Your task to perform on an android device: Open calendar and show me the third week of next month Image 0: 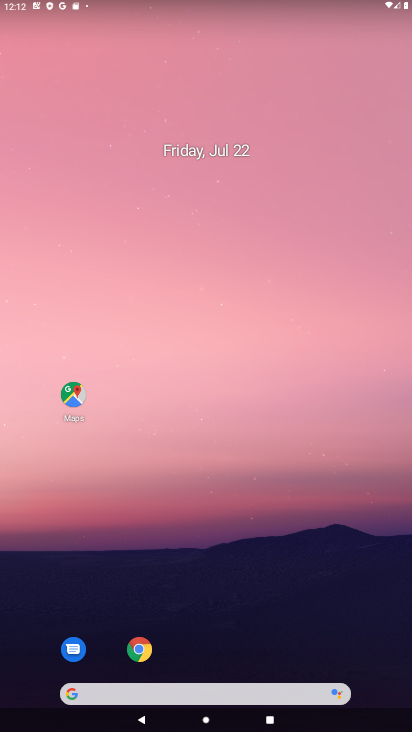
Step 0: drag from (223, 711) to (223, 262)
Your task to perform on an android device: Open calendar and show me the third week of next month Image 1: 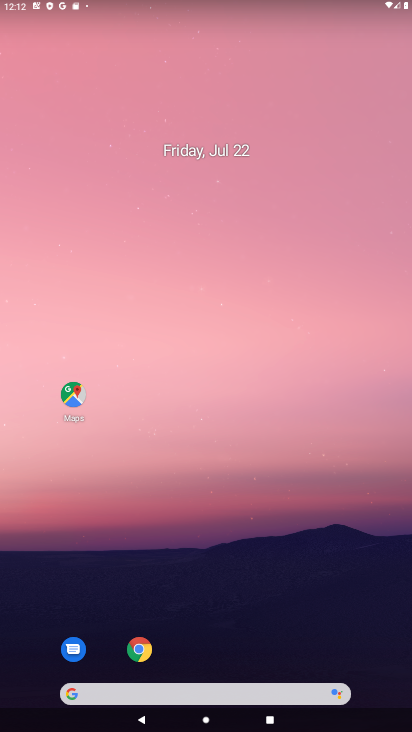
Step 1: drag from (233, 726) to (231, 286)
Your task to perform on an android device: Open calendar and show me the third week of next month Image 2: 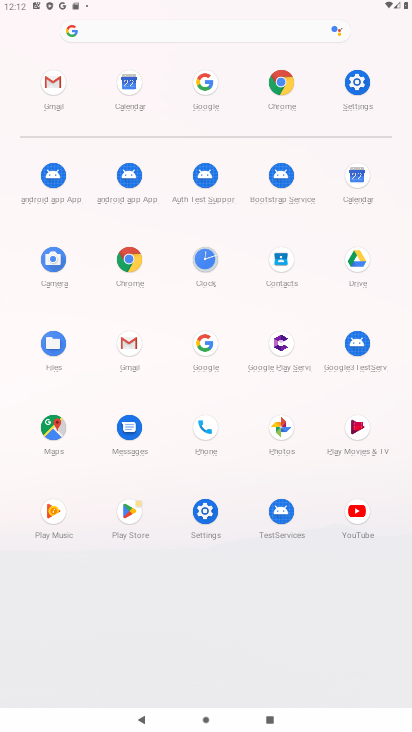
Step 2: click (357, 177)
Your task to perform on an android device: Open calendar and show me the third week of next month Image 3: 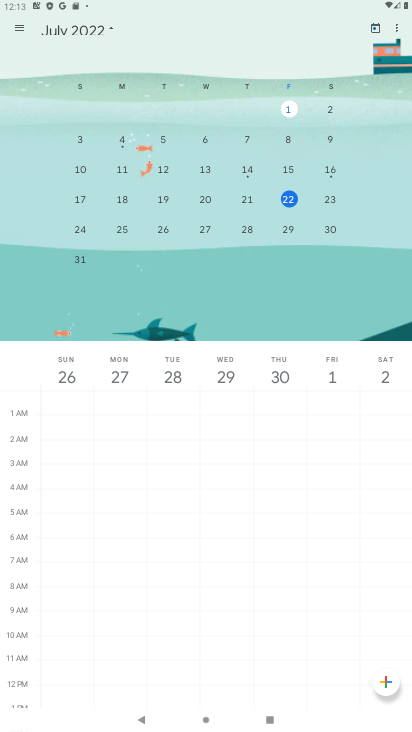
Step 3: drag from (289, 189) to (32, 209)
Your task to perform on an android device: Open calendar and show me the third week of next month Image 4: 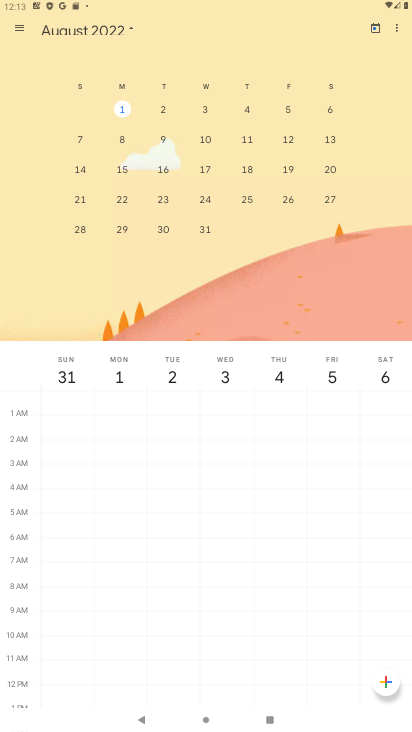
Step 4: click (125, 168)
Your task to perform on an android device: Open calendar and show me the third week of next month Image 5: 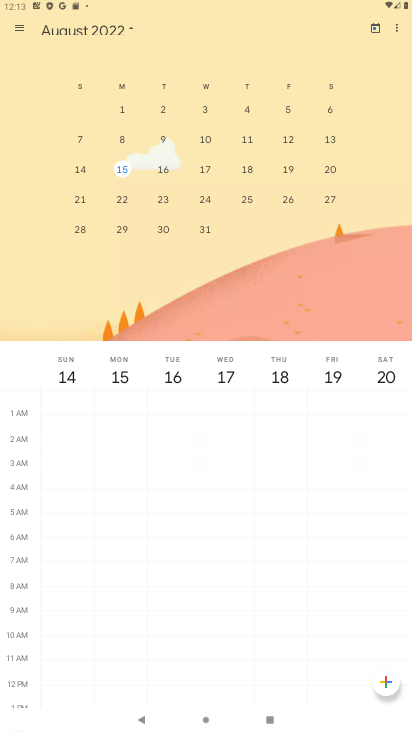
Step 5: click (22, 21)
Your task to perform on an android device: Open calendar and show me the third week of next month Image 6: 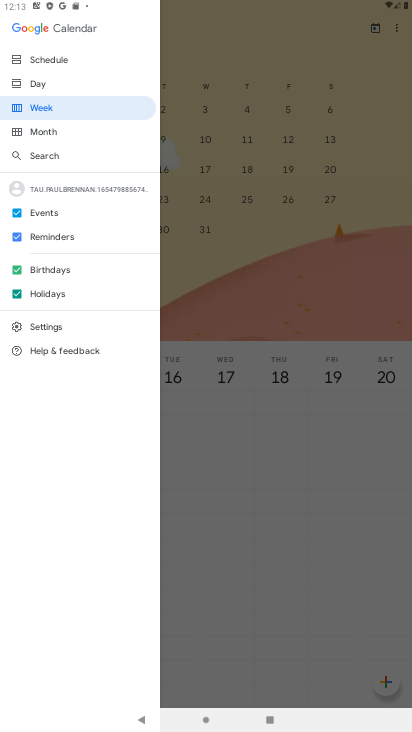
Step 6: click (54, 106)
Your task to perform on an android device: Open calendar and show me the third week of next month Image 7: 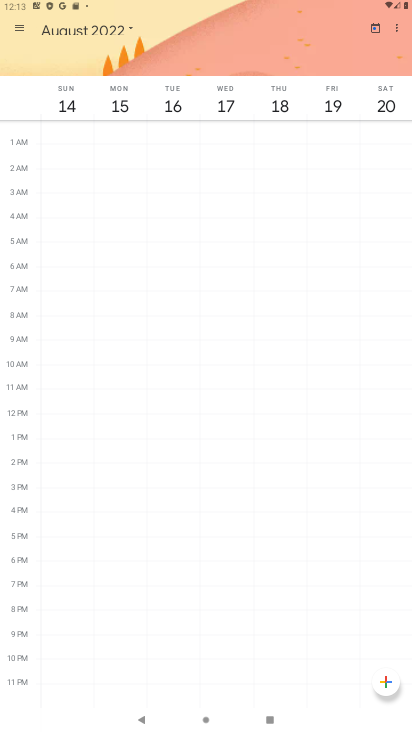
Step 7: task complete